Your task to perform on an android device: make emails show in primary in the gmail app Image 0: 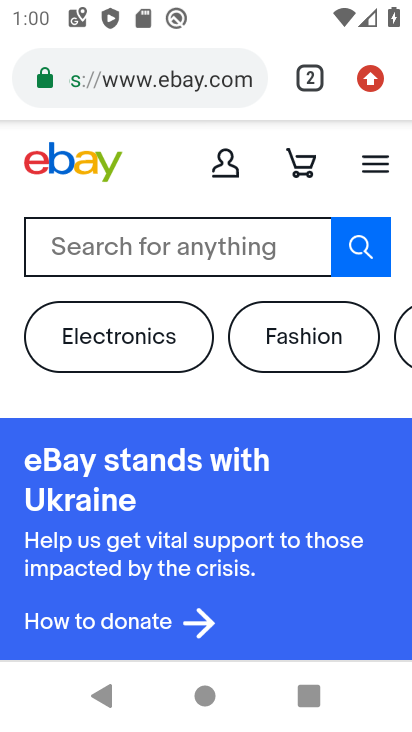
Step 0: press home button
Your task to perform on an android device: make emails show in primary in the gmail app Image 1: 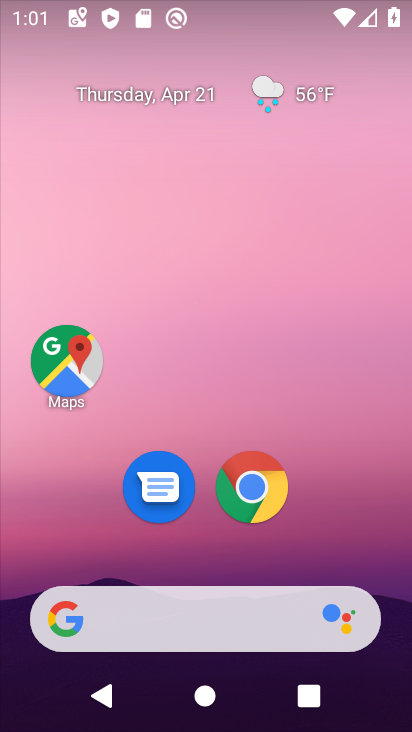
Step 1: drag from (370, 571) to (300, 14)
Your task to perform on an android device: make emails show in primary in the gmail app Image 2: 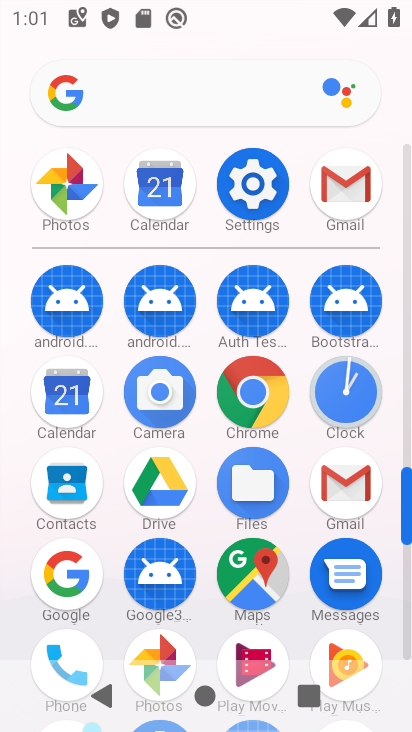
Step 2: click (343, 184)
Your task to perform on an android device: make emails show in primary in the gmail app Image 3: 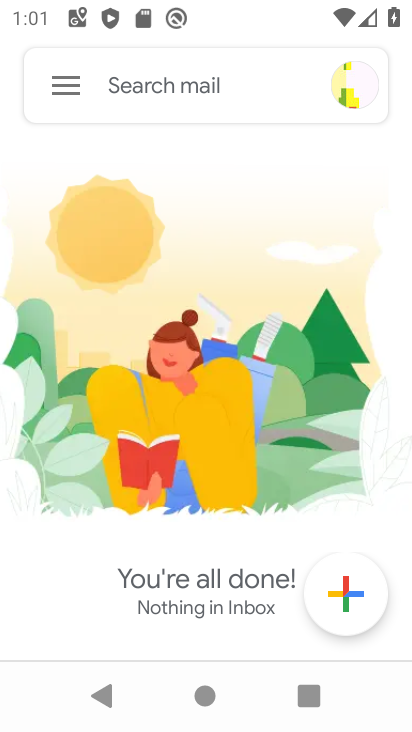
Step 3: click (71, 87)
Your task to perform on an android device: make emails show in primary in the gmail app Image 4: 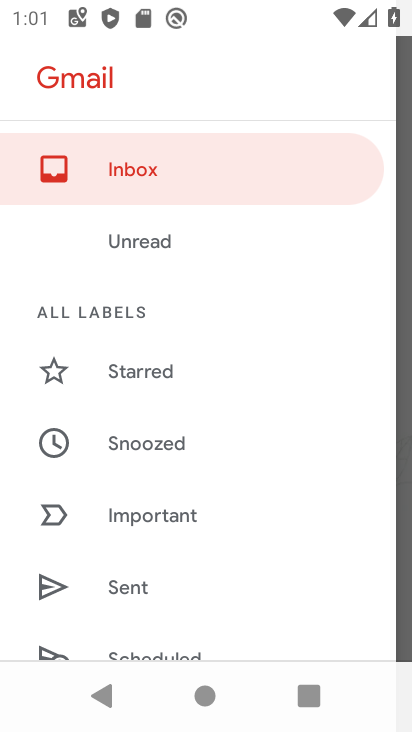
Step 4: drag from (263, 554) to (256, 155)
Your task to perform on an android device: make emails show in primary in the gmail app Image 5: 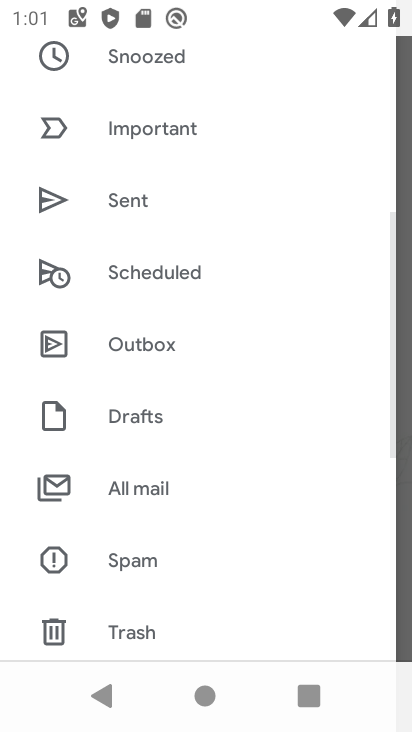
Step 5: drag from (257, 541) to (248, 66)
Your task to perform on an android device: make emails show in primary in the gmail app Image 6: 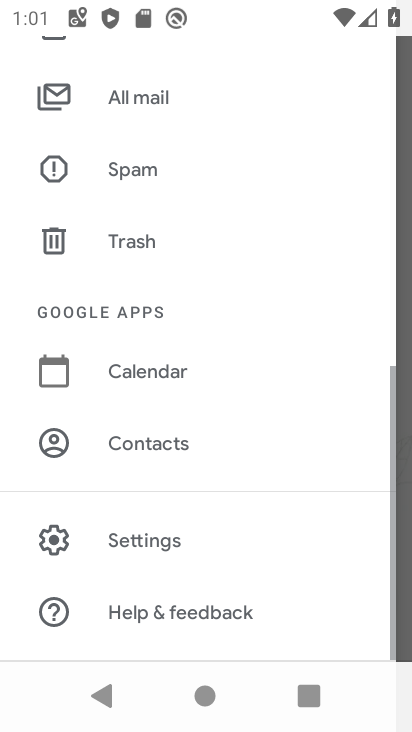
Step 6: click (130, 542)
Your task to perform on an android device: make emails show in primary in the gmail app Image 7: 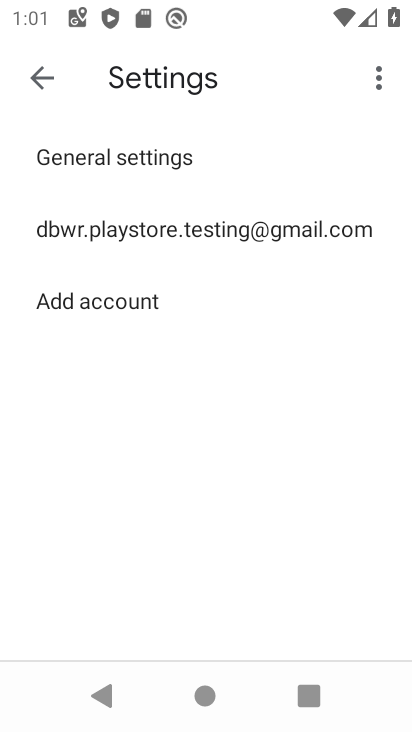
Step 7: click (110, 216)
Your task to perform on an android device: make emails show in primary in the gmail app Image 8: 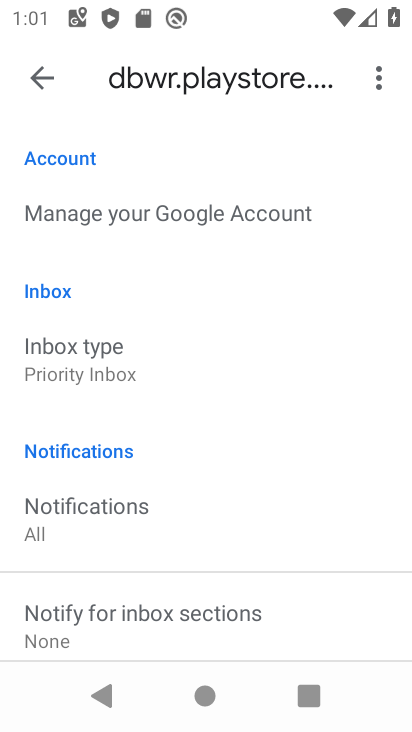
Step 8: task complete